Your task to perform on an android device: What is the news today? Image 0: 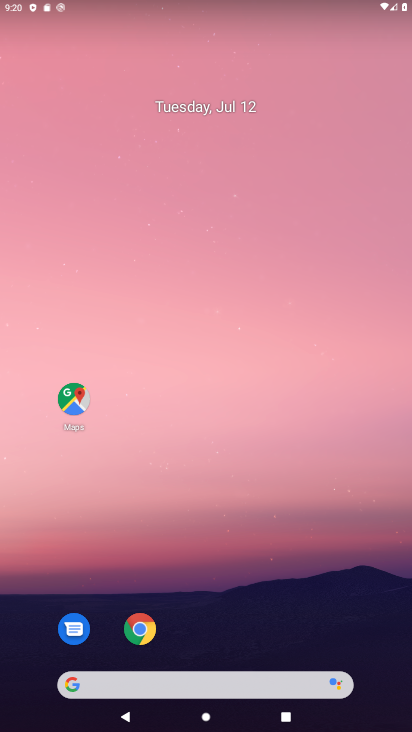
Step 0: drag from (320, 694) to (338, 140)
Your task to perform on an android device: What is the news today? Image 1: 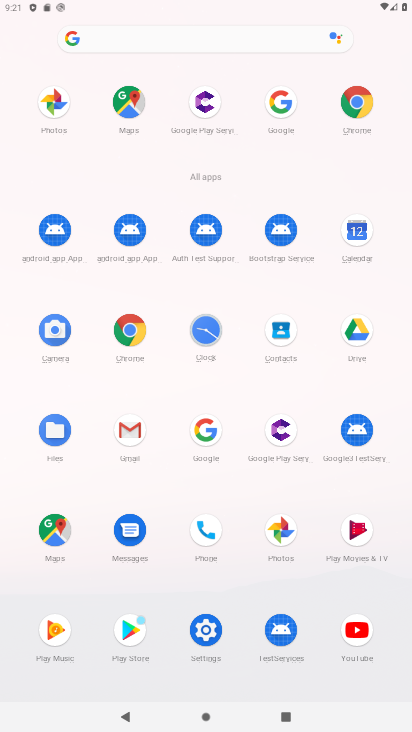
Step 1: click (126, 324)
Your task to perform on an android device: What is the news today? Image 2: 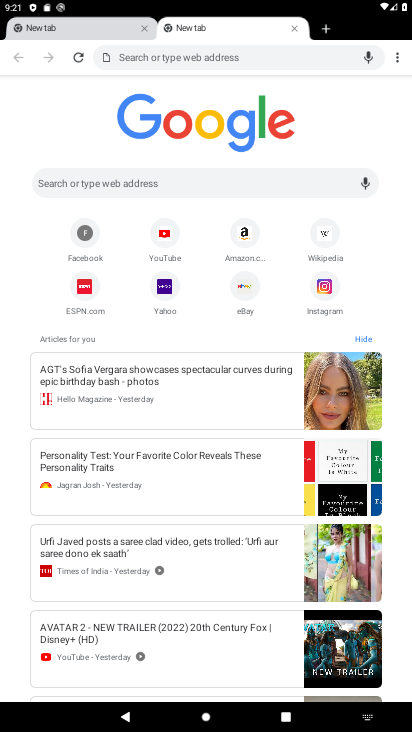
Step 2: type "news today"
Your task to perform on an android device: What is the news today? Image 3: 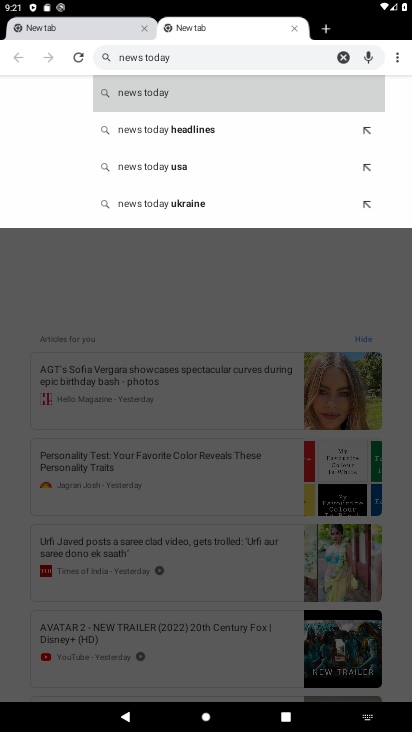
Step 3: click (236, 95)
Your task to perform on an android device: What is the news today? Image 4: 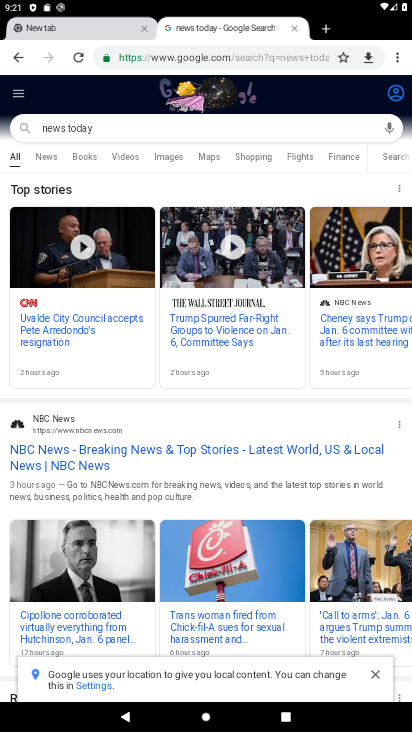
Step 4: task complete